Your task to perform on an android device: set the timer Image 0: 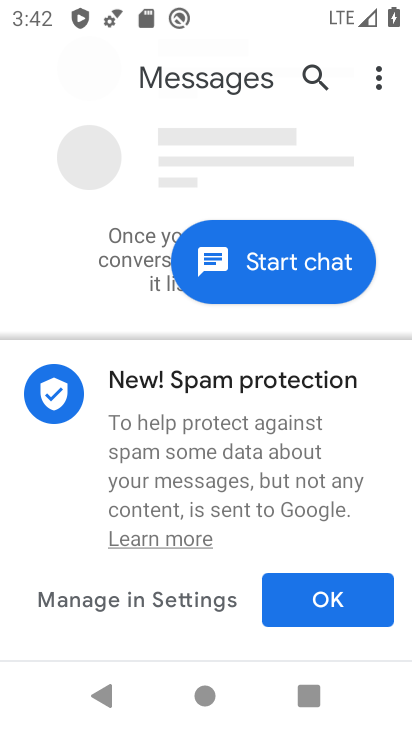
Step 0: press home button
Your task to perform on an android device: set the timer Image 1: 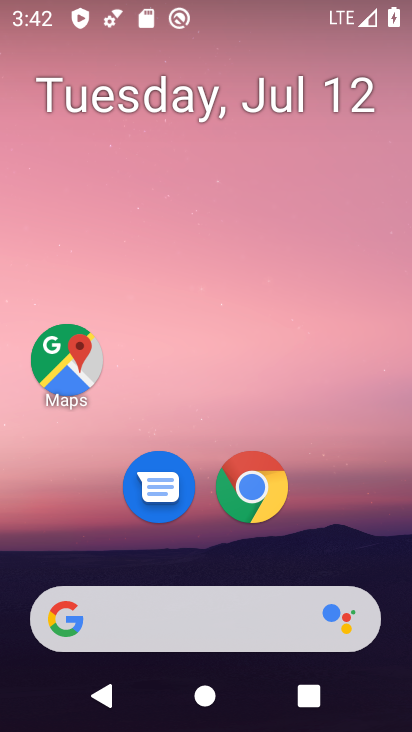
Step 1: drag from (262, 486) to (297, 64)
Your task to perform on an android device: set the timer Image 2: 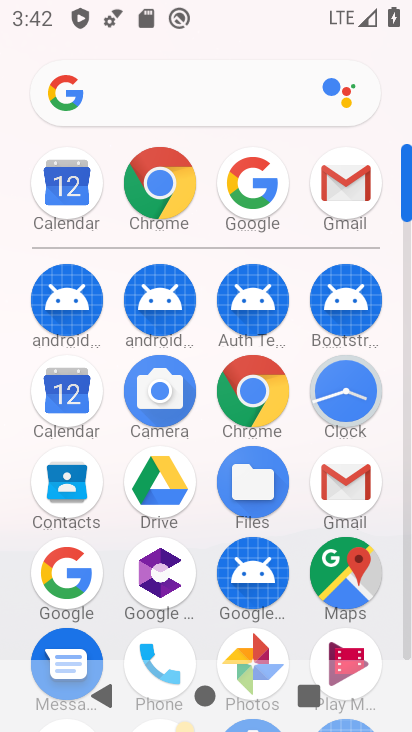
Step 2: click (360, 408)
Your task to perform on an android device: set the timer Image 3: 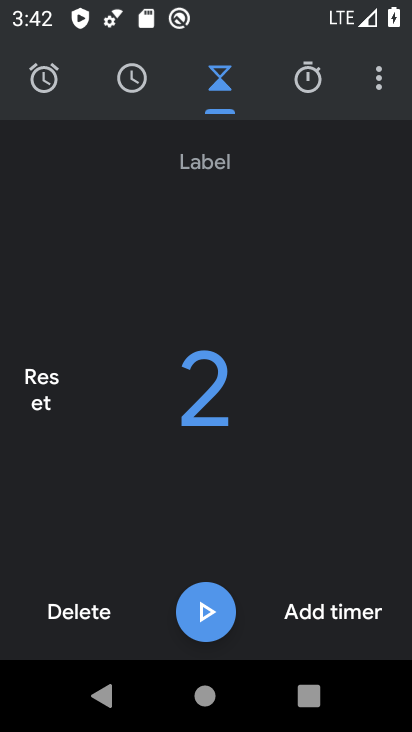
Step 3: click (205, 614)
Your task to perform on an android device: set the timer Image 4: 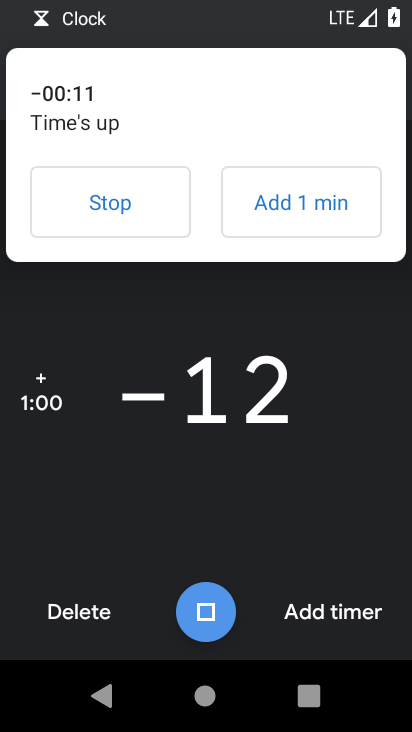
Step 4: task complete